Your task to perform on an android device: Open the stopwatch Image 0: 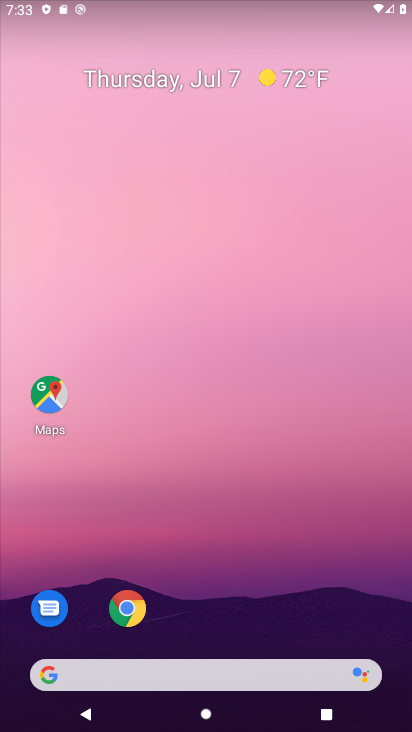
Step 0: drag from (398, 699) to (357, 43)
Your task to perform on an android device: Open the stopwatch Image 1: 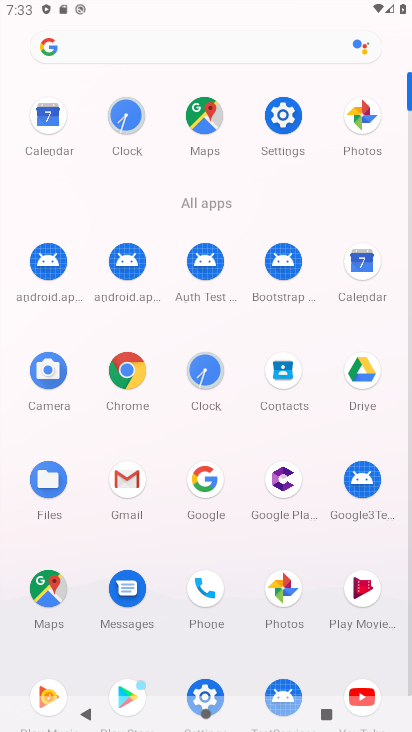
Step 1: click (201, 373)
Your task to perform on an android device: Open the stopwatch Image 2: 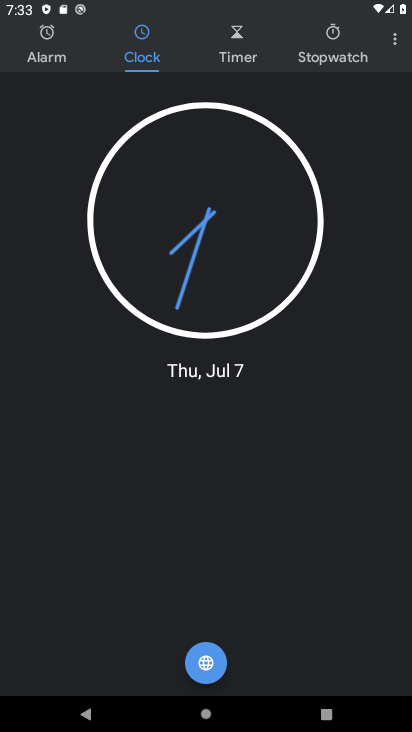
Step 2: click (330, 38)
Your task to perform on an android device: Open the stopwatch Image 3: 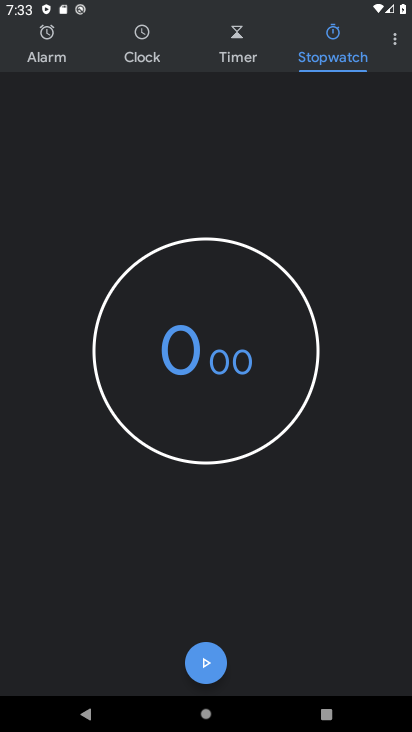
Step 3: task complete